Your task to perform on an android device: open device folders in google photos Image 0: 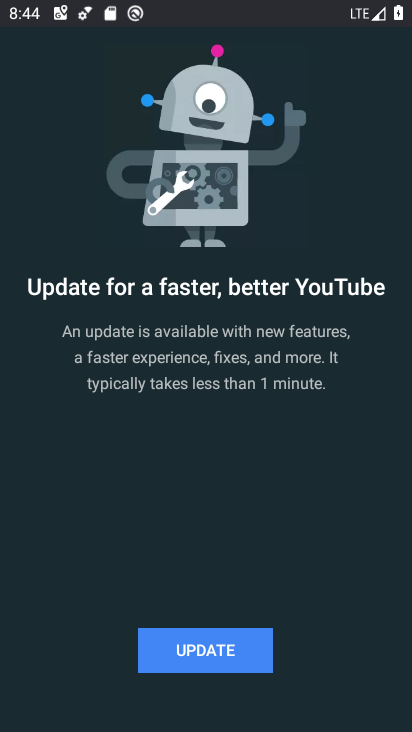
Step 0: press home button
Your task to perform on an android device: open device folders in google photos Image 1: 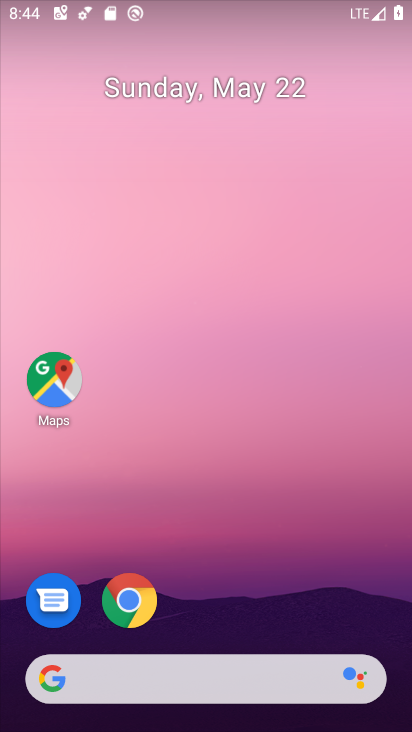
Step 1: drag from (200, 624) to (236, 281)
Your task to perform on an android device: open device folders in google photos Image 2: 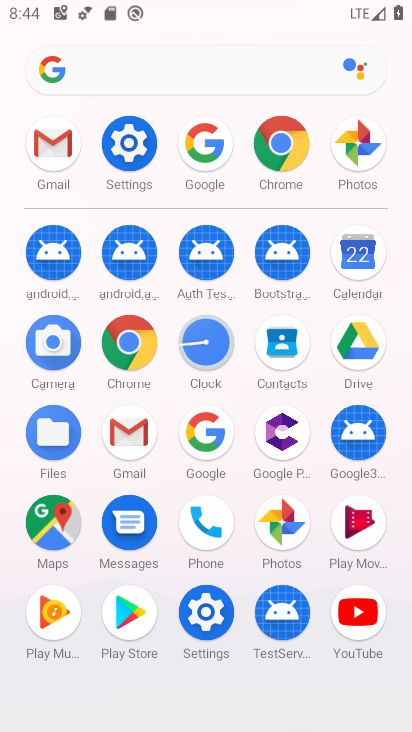
Step 2: click (363, 153)
Your task to perform on an android device: open device folders in google photos Image 3: 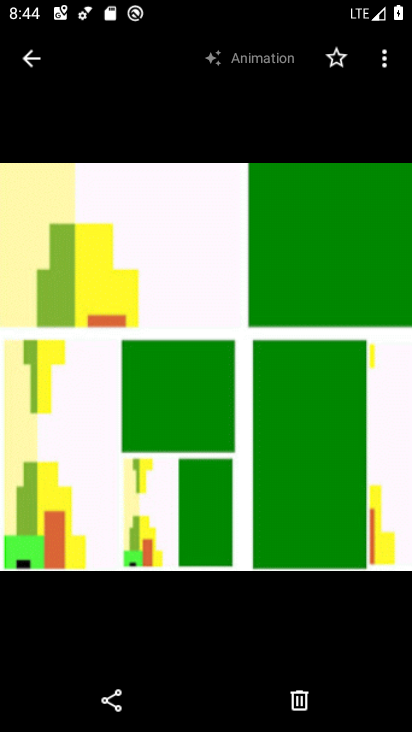
Step 3: click (32, 66)
Your task to perform on an android device: open device folders in google photos Image 4: 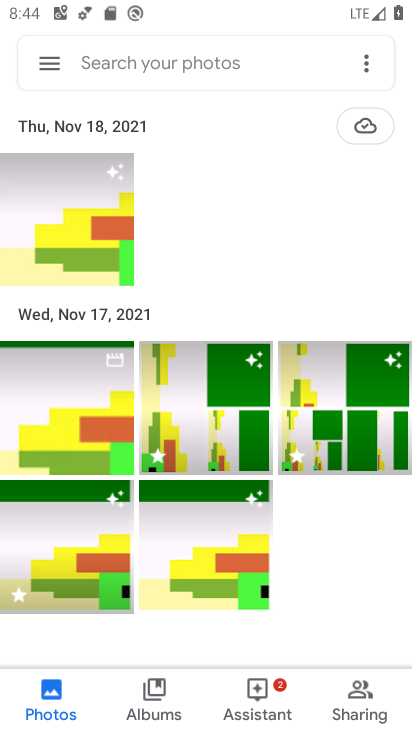
Step 4: click (34, 64)
Your task to perform on an android device: open device folders in google photos Image 5: 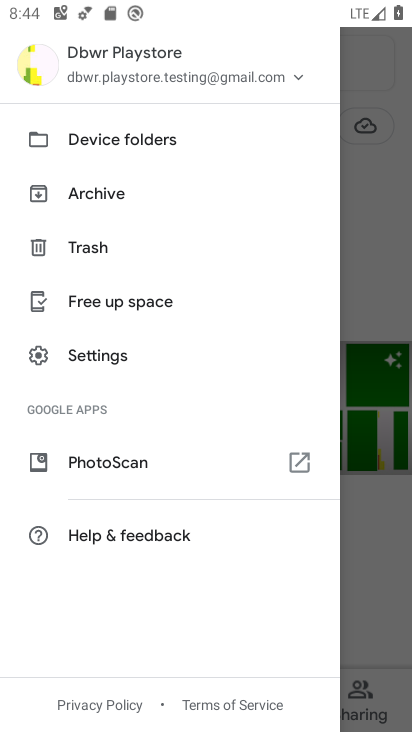
Step 5: click (132, 141)
Your task to perform on an android device: open device folders in google photos Image 6: 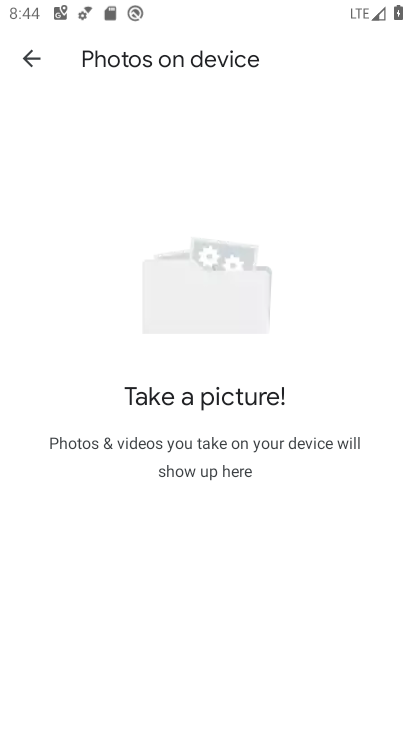
Step 6: task complete